Your task to perform on an android device: turn off sleep mode Image 0: 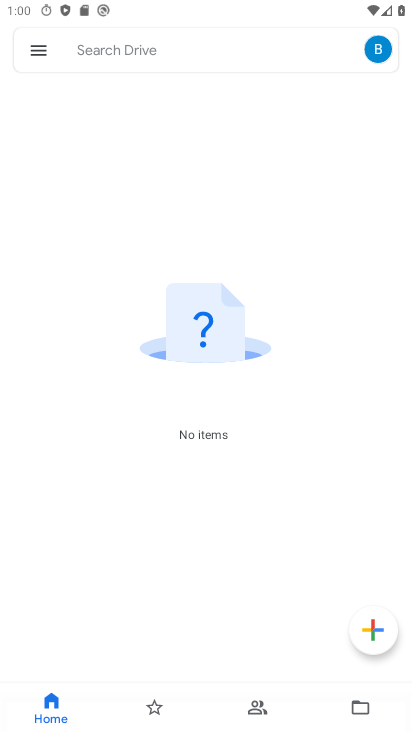
Step 0: press home button
Your task to perform on an android device: turn off sleep mode Image 1: 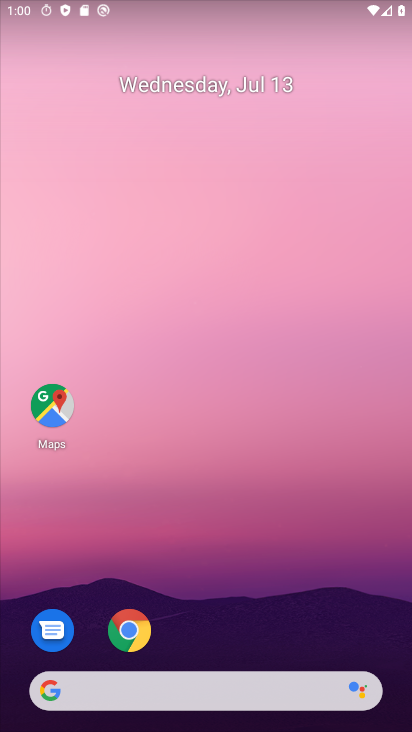
Step 1: drag from (313, 571) to (229, 32)
Your task to perform on an android device: turn off sleep mode Image 2: 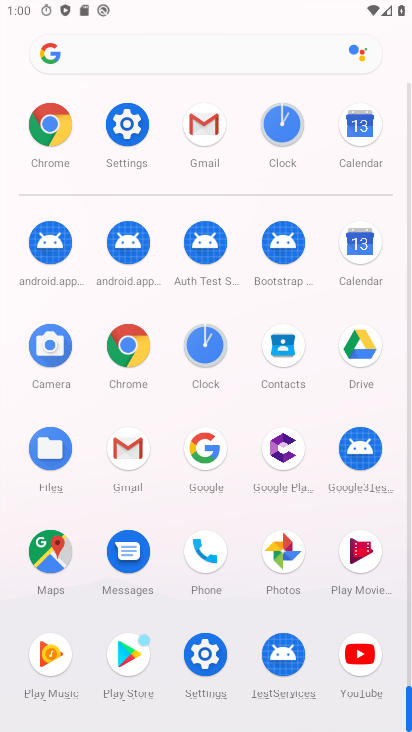
Step 2: click (130, 125)
Your task to perform on an android device: turn off sleep mode Image 3: 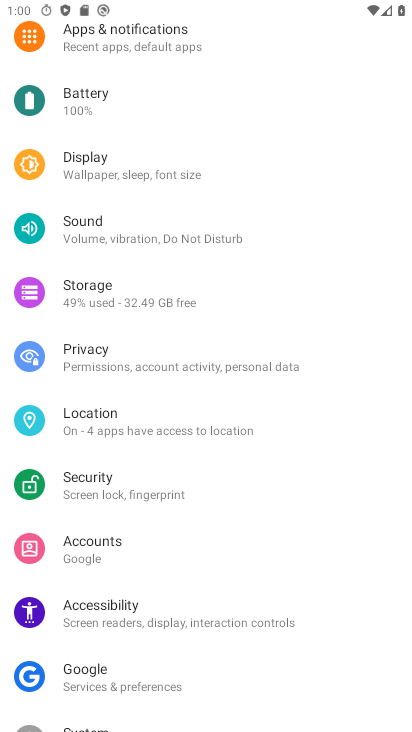
Step 3: click (123, 165)
Your task to perform on an android device: turn off sleep mode Image 4: 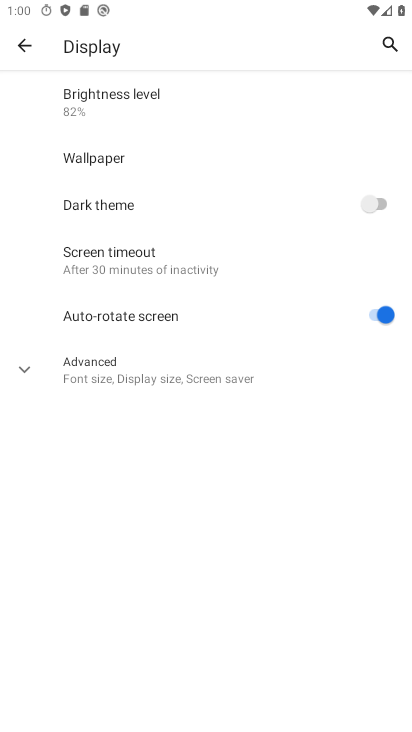
Step 4: click (128, 257)
Your task to perform on an android device: turn off sleep mode Image 5: 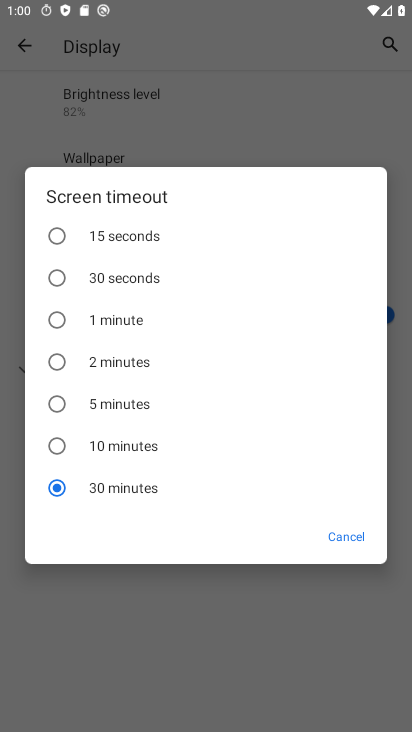
Step 5: task complete